Your task to perform on an android device: check out phone information Image 0: 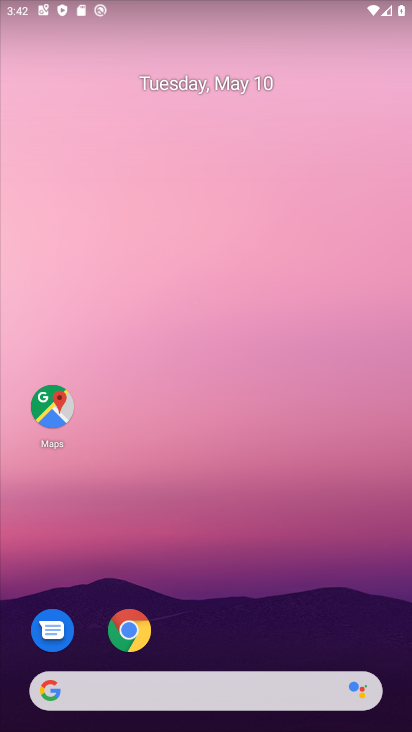
Step 0: drag from (204, 598) to (176, 55)
Your task to perform on an android device: check out phone information Image 1: 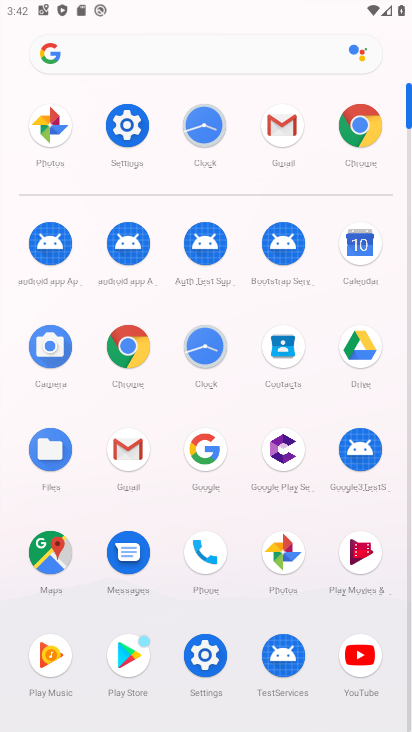
Step 1: click (124, 124)
Your task to perform on an android device: check out phone information Image 2: 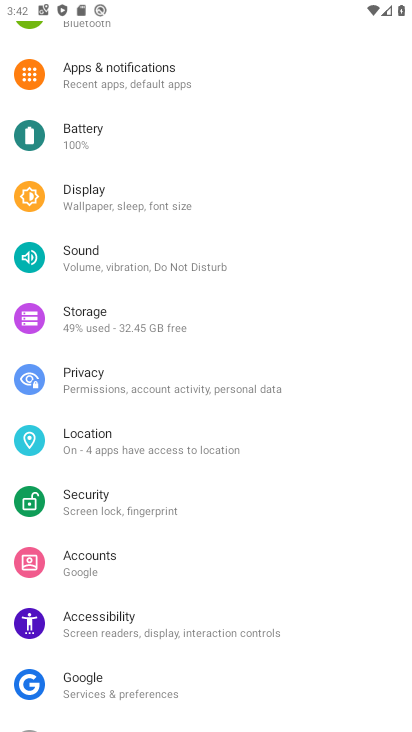
Step 2: drag from (98, 698) to (215, 27)
Your task to perform on an android device: check out phone information Image 3: 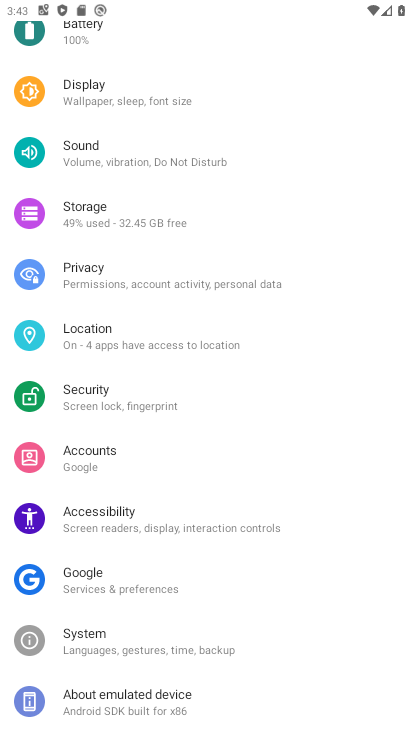
Step 3: click (242, 699)
Your task to perform on an android device: check out phone information Image 4: 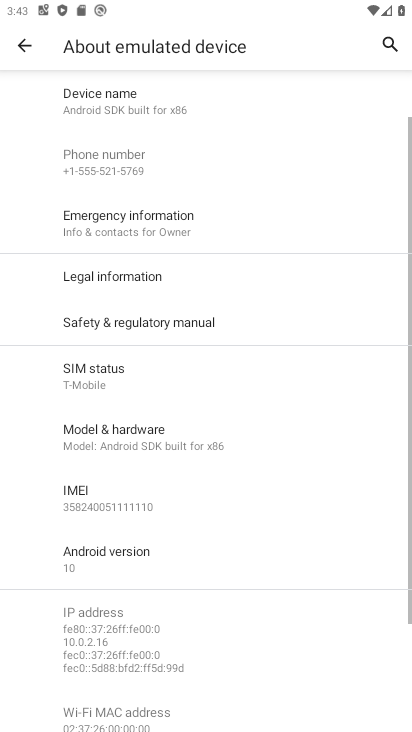
Step 4: task complete